Your task to perform on an android device: Open Youtube and go to "Your channel" Image 0: 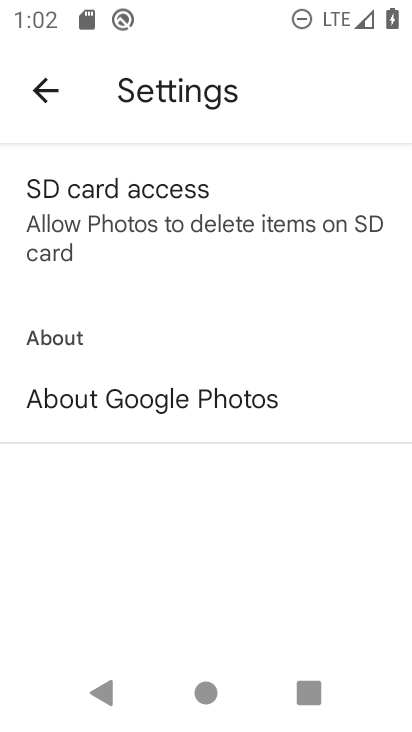
Step 0: press home button
Your task to perform on an android device: Open Youtube and go to "Your channel" Image 1: 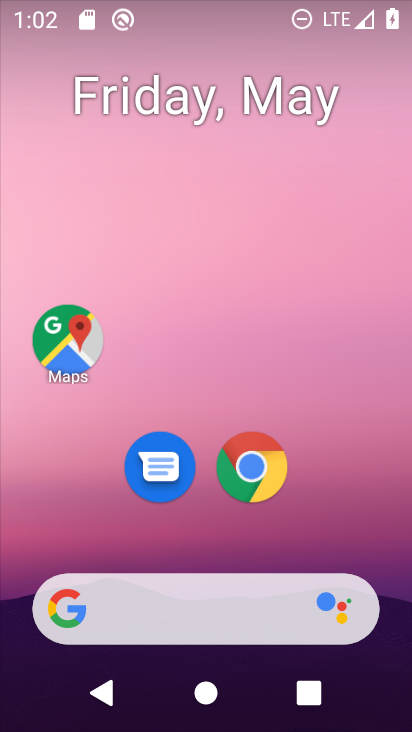
Step 1: drag from (280, 307) to (301, 0)
Your task to perform on an android device: Open Youtube and go to "Your channel" Image 2: 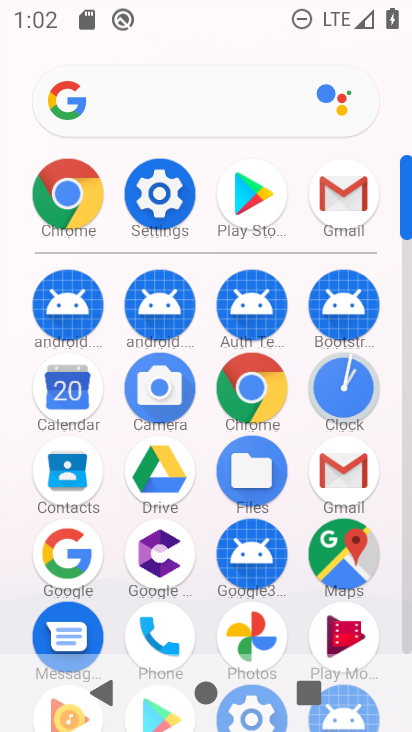
Step 2: drag from (302, 627) to (306, 326)
Your task to perform on an android device: Open Youtube and go to "Your channel" Image 3: 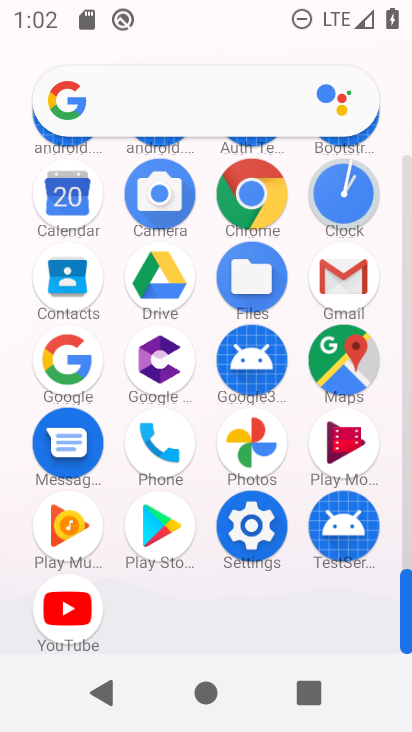
Step 3: click (69, 602)
Your task to perform on an android device: Open Youtube and go to "Your channel" Image 4: 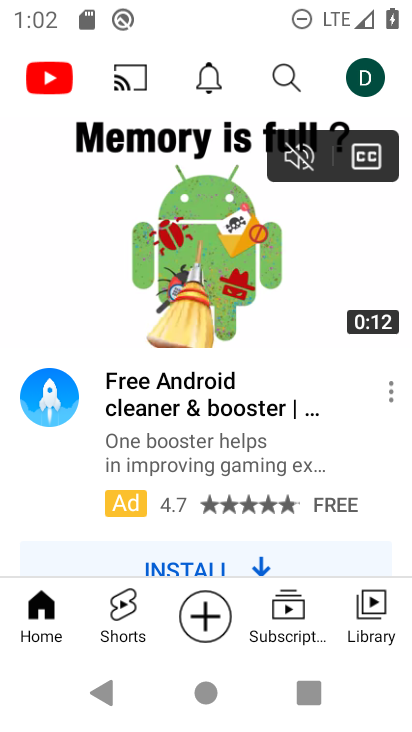
Step 4: click (378, 88)
Your task to perform on an android device: Open Youtube and go to "Your channel" Image 5: 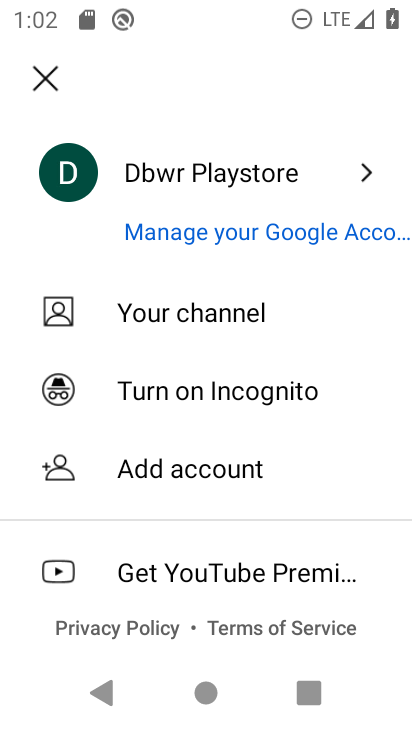
Step 5: click (238, 313)
Your task to perform on an android device: Open Youtube and go to "Your channel" Image 6: 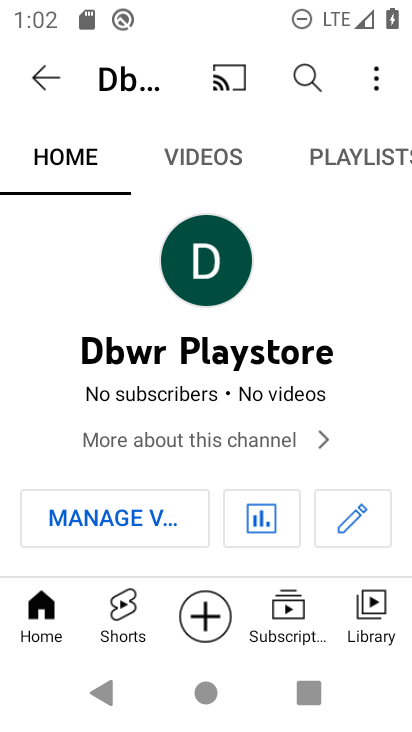
Step 6: task complete